Your task to perform on an android device: Go to privacy settings Image 0: 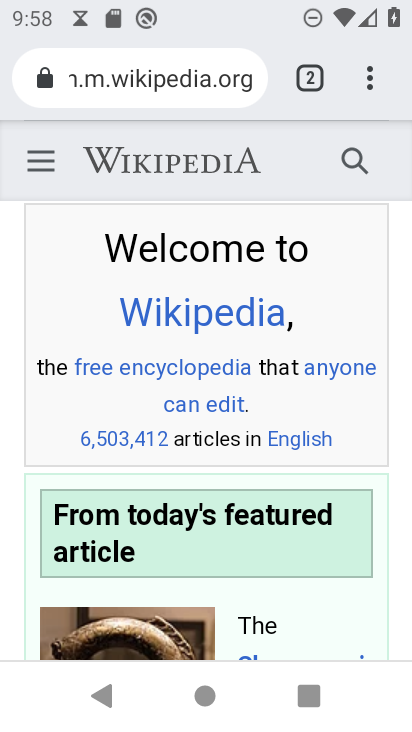
Step 0: press home button
Your task to perform on an android device: Go to privacy settings Image 1: 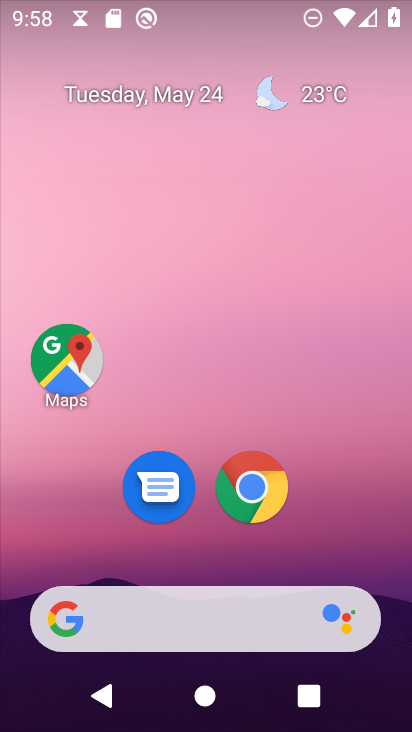
Step 1: drag from (78, 534) to (270, 180)
Your task to perform on an android device: Go to privacy settings Image 2: 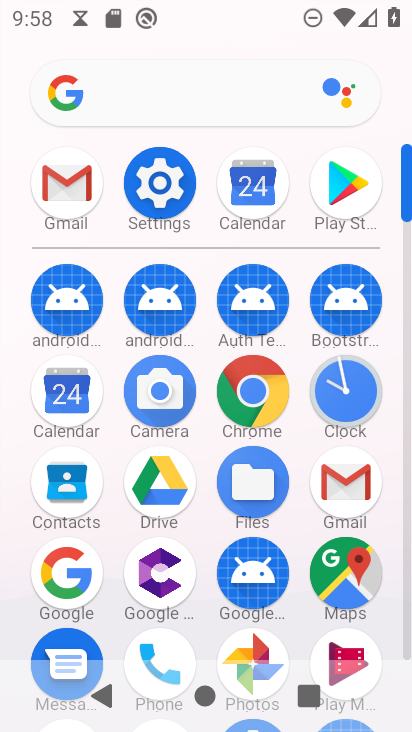
Step 2: click (157, 176)
Your task to perform on an android device: Go to privacy settings Image 3: 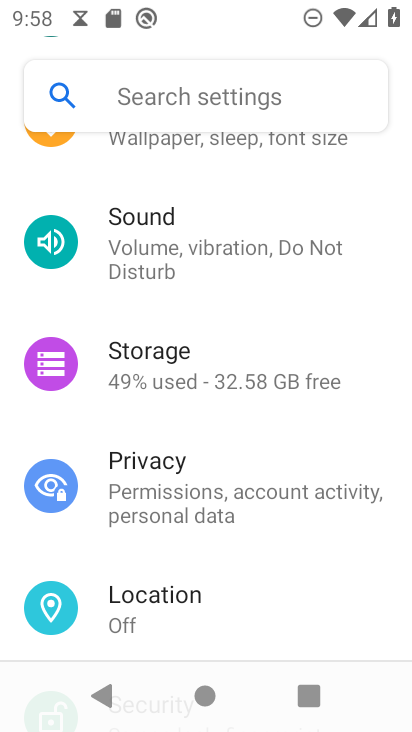
Step 3: drag from (236, 112) to (184, 383)
Your task to perform on an android device: Go to privacy settings Image 4: 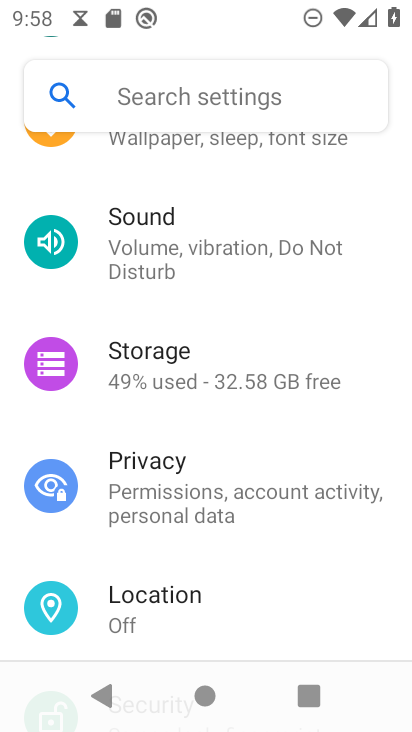
Step 4: drag from (37, 537) to (301, 179)
Your task to perform on an android device: Go to privacy settings Image 5: 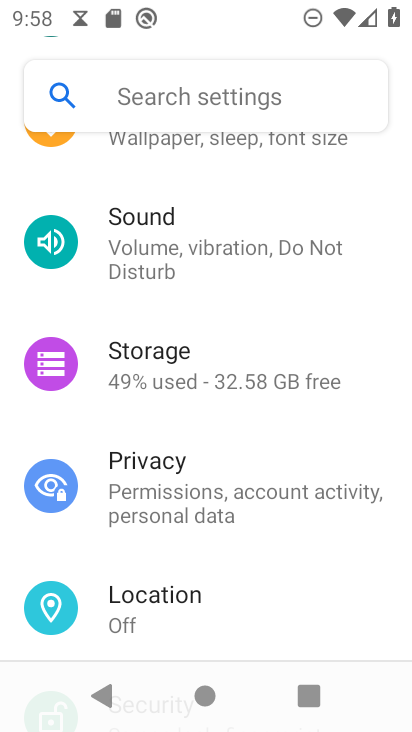
Step 5: drag from (44, 625) to (346, 161)
Your task to perform on an android device: Go to privacy settings Image 6: 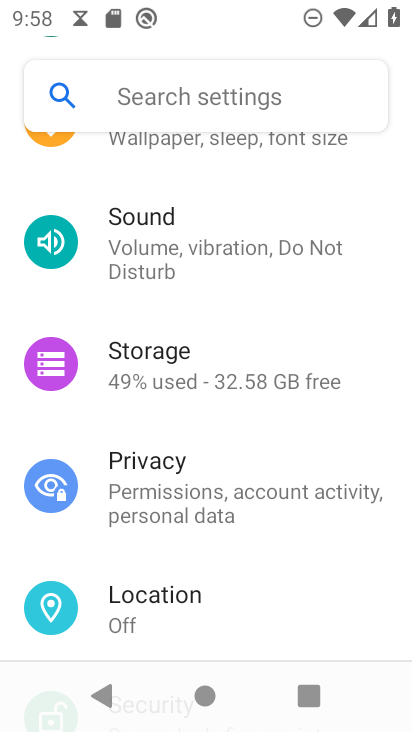
Step 6: drag from (76, 446) to (317, 150)
Your task to perform on an android device: Go to privacy settings Image 7: 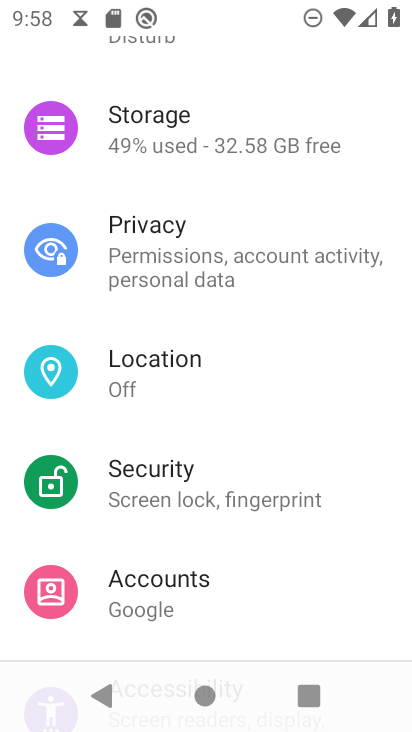
Step 7: drag from (171, 208) to (173, 456)
Your task to perform on an android device: Go to privacy settings Image 8: 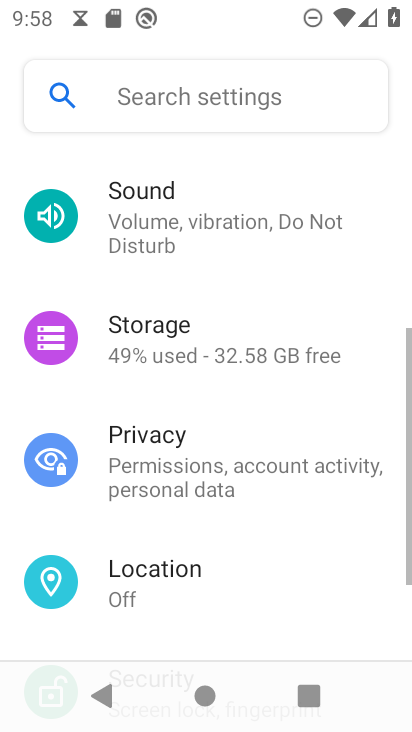
Step 8: drag from (226, 248) to (202, 523)
Your task to perform on an android device: Go to privacy settings Image 9: 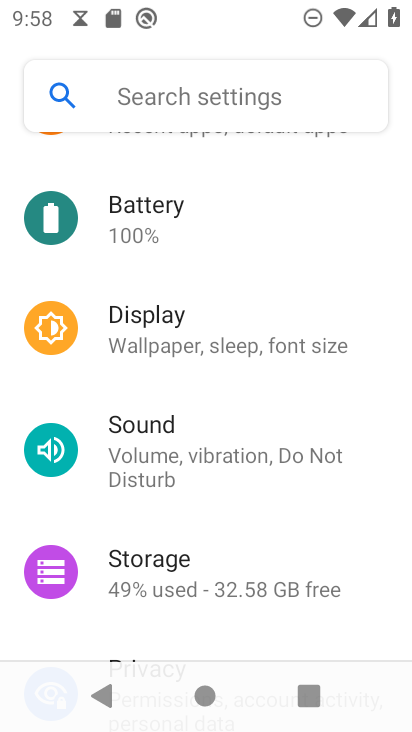
Step 9: drag from (23, 579) to (291, 246)
Your task to perform on an android device: Go to privacy settings Image 10: 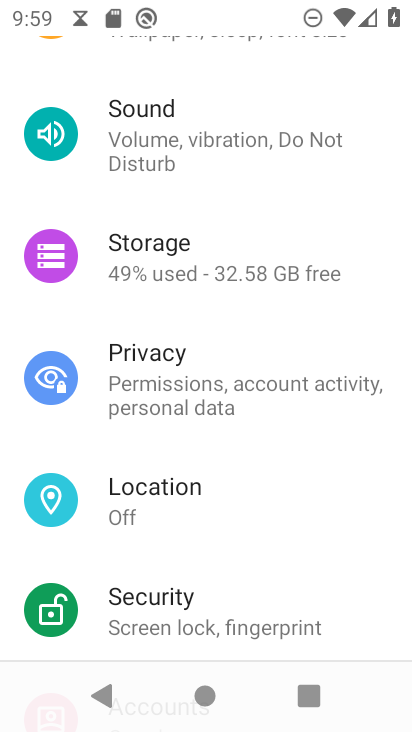
Step 10: click (184, 367)
Your task to perform on an android device: Go to privacy settings Image 11: 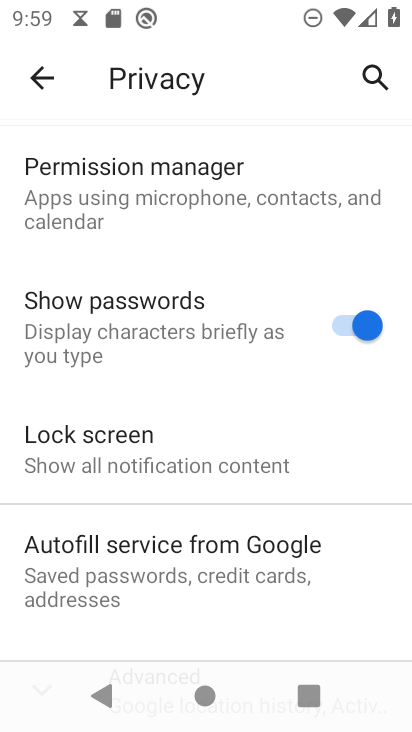
Step 11: task complete